Your task to perform on an android device: toggle pop-ups in chrome Image 0: 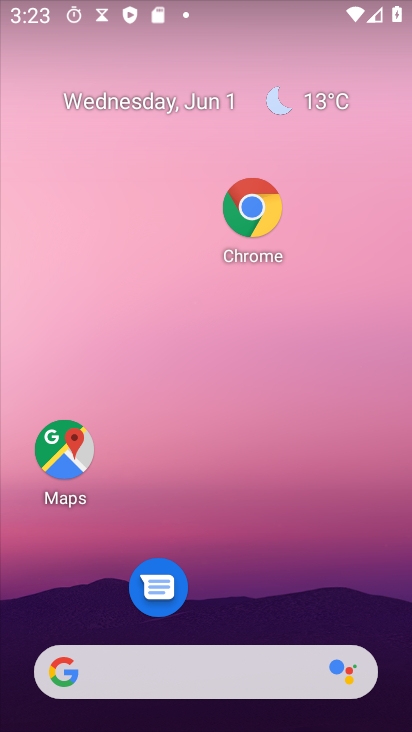
Step 0: drag from (246, 615) to (133, 143)
Your task to perform on an android device: toggle pop-ups in chrome Image 1: 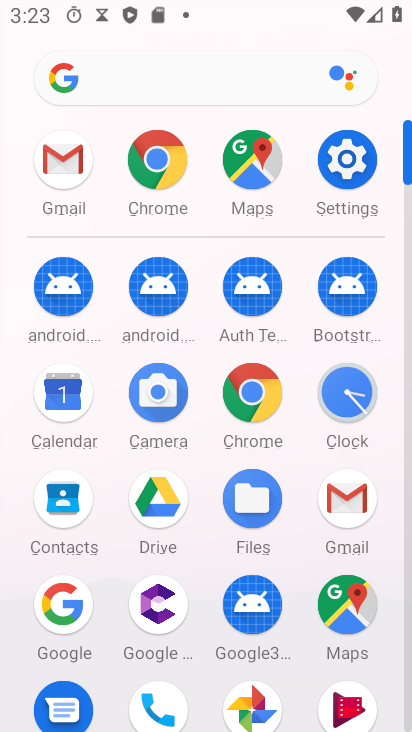
Step 1: click (157, 163)
Your task to perform on an android device: toggle pop-ups in chrome Image 2: 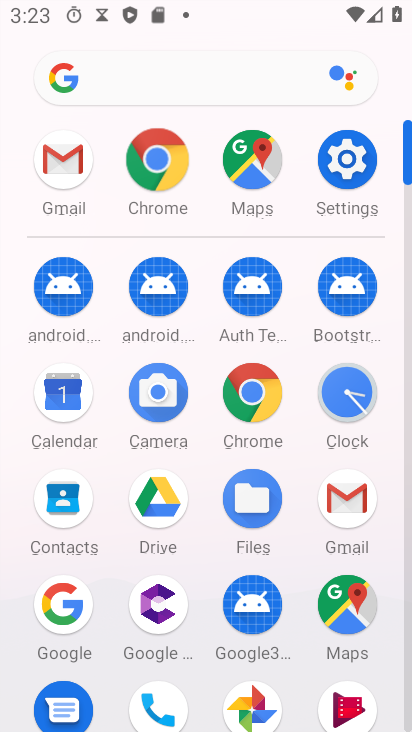
Step 2: click (157, 163)
Your task to perform on an android device: toggle pop-ups in chrome Image 3: 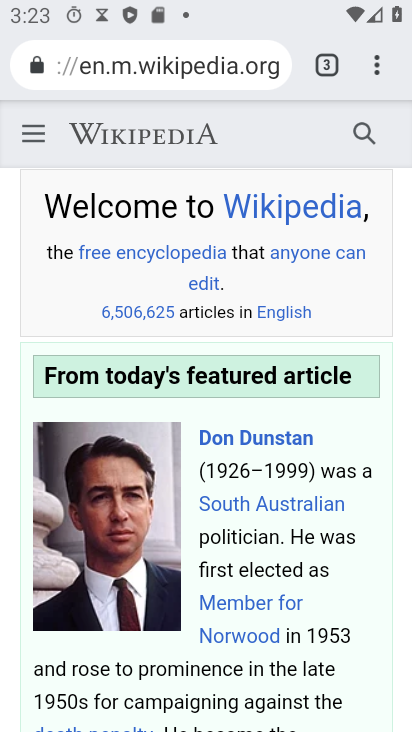
Step 3: drag from (362, 51) to (136, 628)
Your task to perform on an android device: toggle pop-ups in chrome Image 4: 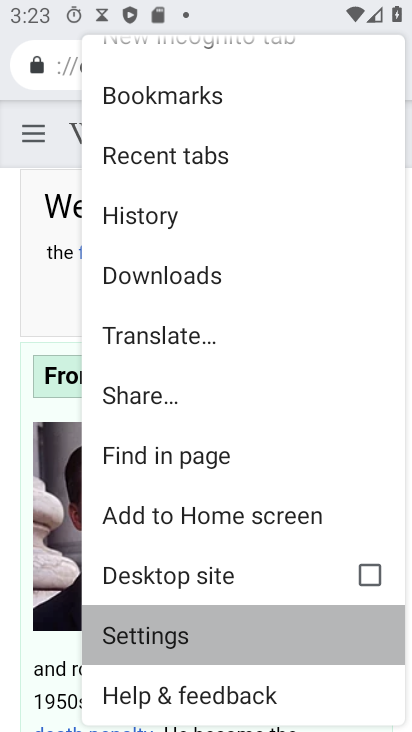
Step 4: click (136, 629)
Your task to perform on an android device: toggle pop-ups in chrome Image 5: 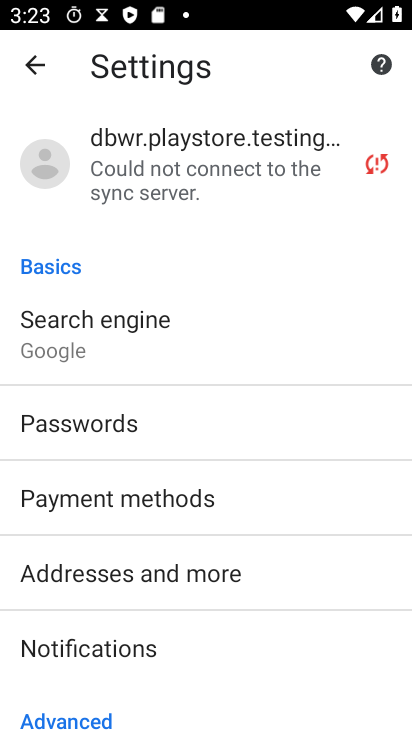
Step 5: drag from (172, 515) to (106, 177)
Your task to perform on an android device: toggle pop-ups in chrome Image 6: 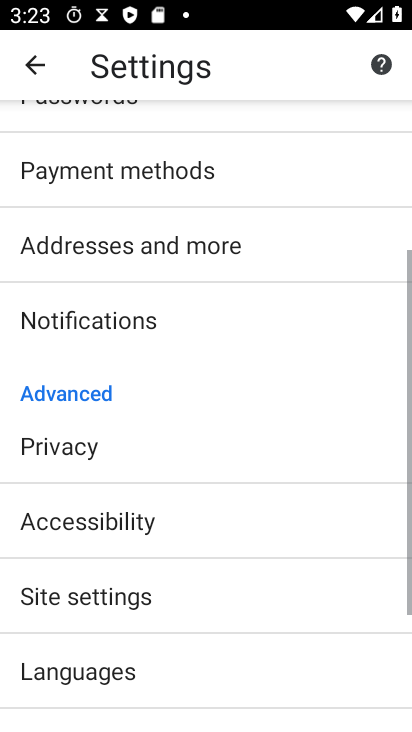
Step 6: drag from (178, 428) to (169, 108)
Your task to perform on an android device: toggle pop-ups in chrome Image 7: 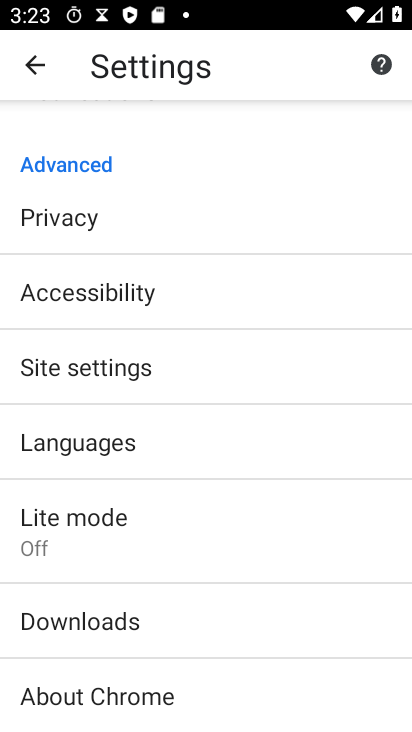
Step 7: click (68, 365)
Your task to perform on an android device: toggle pop-ups in chrome Image 8: 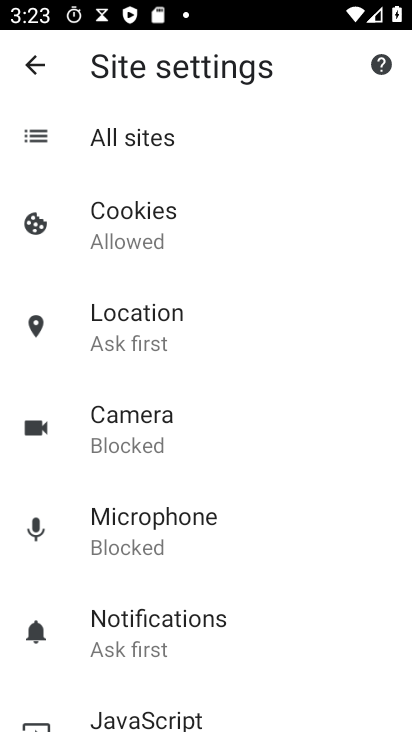
Step 8: drag from (163, 605) to (99, 110)
Your task to perform on an android device: toggle pop-ups in chrome Image 9: 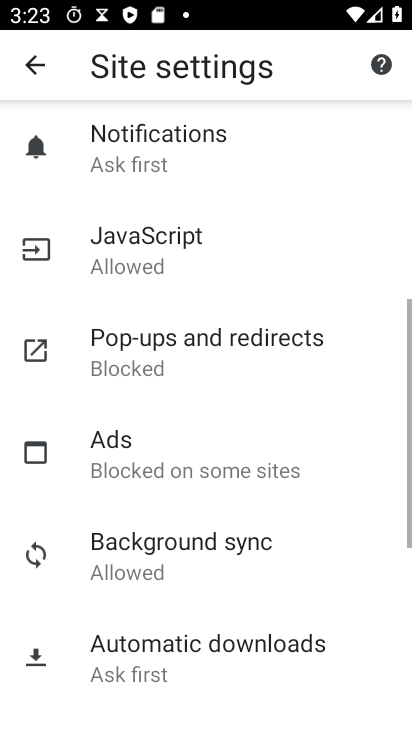
Step 9: drag from (166, 476) to (168, 169)
Your task to perform on an android device: toggle pop-ups in chrome Image 10: 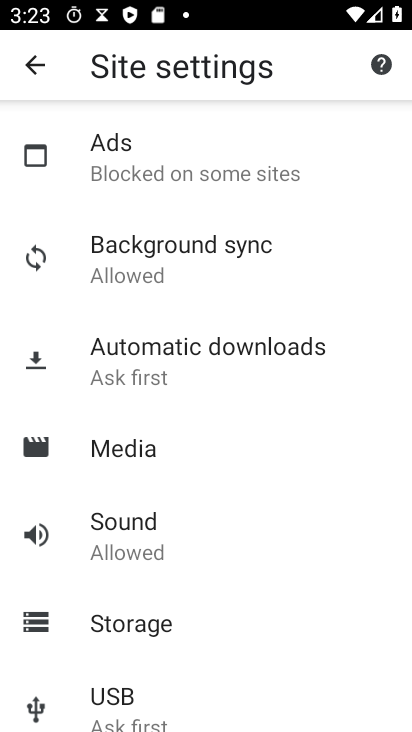
Step 10: drag from (186, 467) to (150, 209)
Your task to perform on an android device: toggle pop-ups in chrome Image 11: 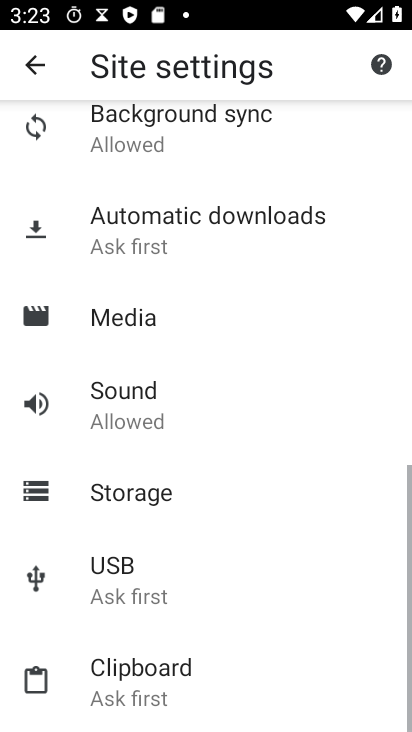
Step 11: drag from (181, 546) to (181, 263)
Your task to perform on an android device: toggle pop-ups in chrome Image 12: 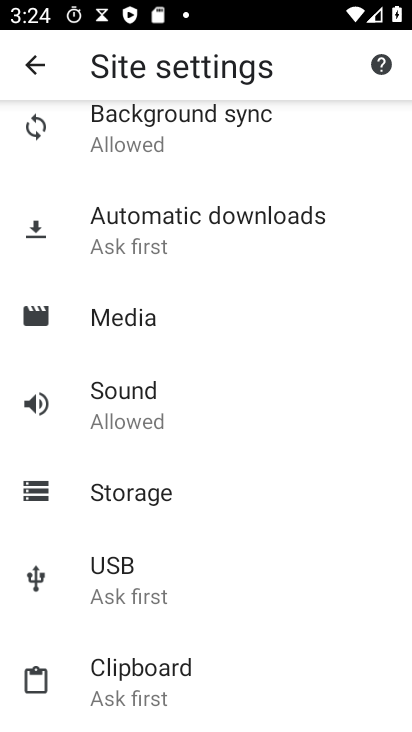
Step 12: drag from (173, 243) to (171, 531)
Your task to perform on an android device: toggle pop-ups in chrome Image 13: 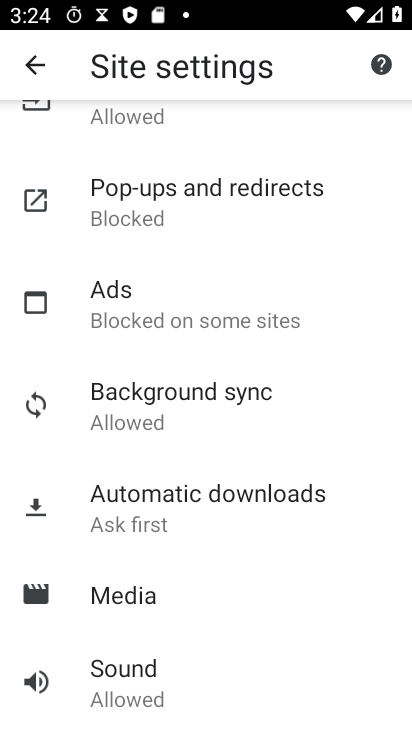
Step 13: click (121, 191)
Your task to perform on an android device: toggle pop-ups in chrome Image 14: 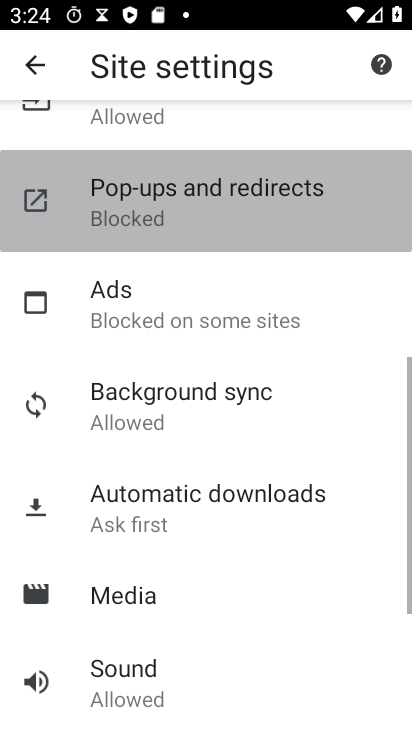
Step 14: click (121, 191)
Your task to perform on an android device: toggle pop-ups in chrome Image 15: 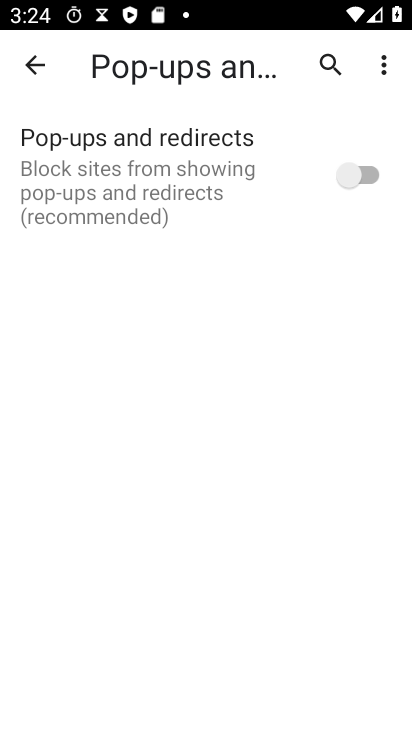
Step 15: click (355, 168)
Your task to perform on an android device: toggle pop-ups in chrome Image 16: 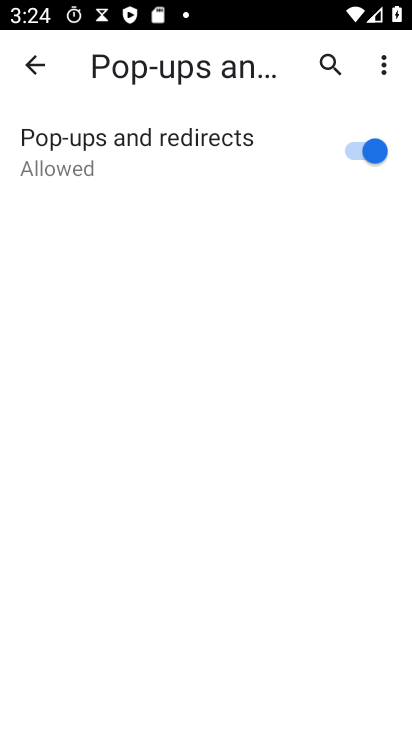
Step 16: task complete